Your task to perform on an android device: Go to Google Image 0: 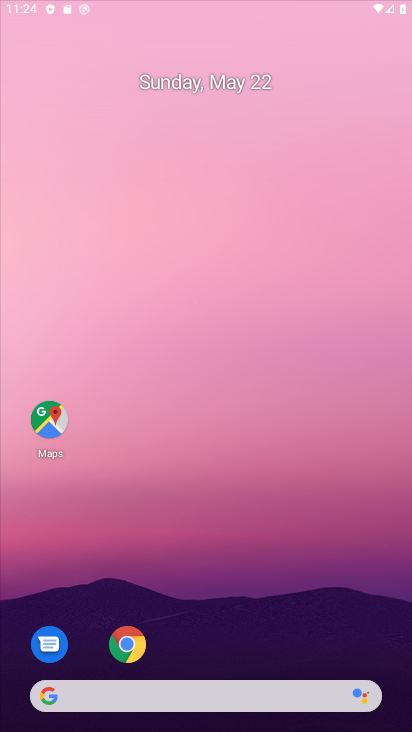
Step 0: drag from (342, 636) to (285, 3)
Your task to perform on an android device: Go to Google Image 1: 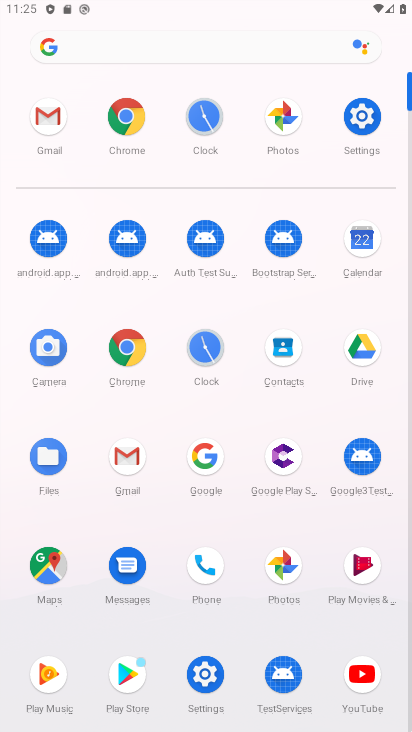
Step 1: click (191, 460)
Your task to perform on an android device: Go to Google Image 2: 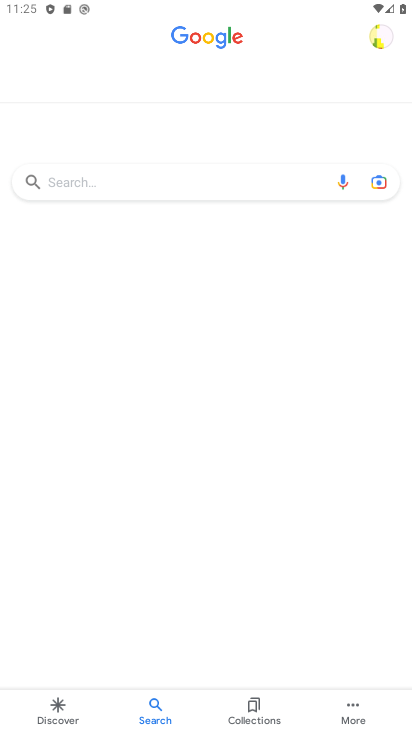
Step 2: task complete